Your task to perform on an android device: Do I have any events this weekend? Image 0: 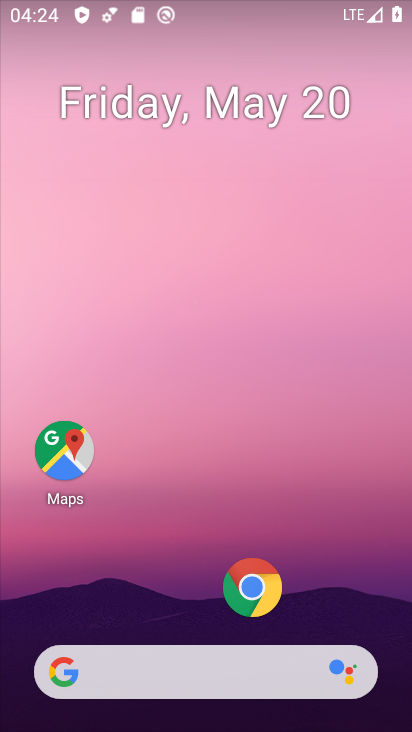
Step 0: click (216, 105)
Your task to perform on an android device: Do I have any events this weekend? Image 1: 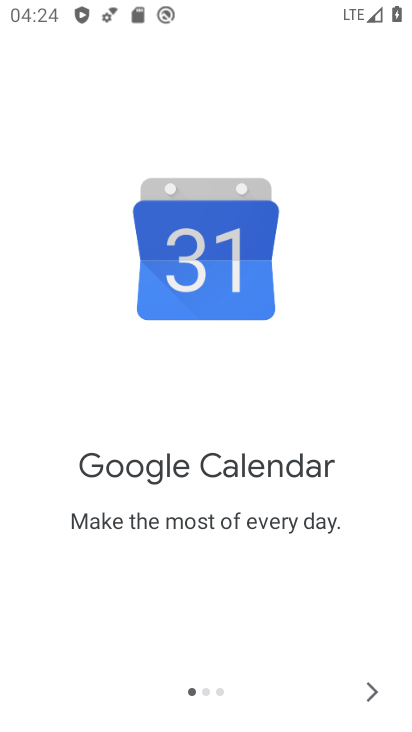
Step 1: click (382, 690)
Your task to perform on an android device: Do I have any events this weekend? Image 2: 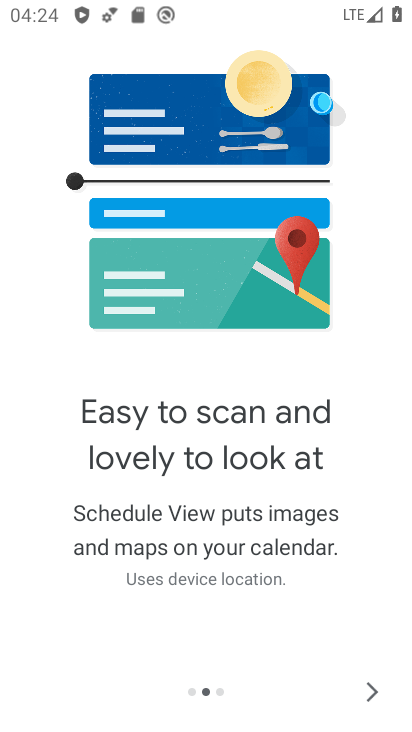
Step 2: click (382, 690)
Your task to perform on an android device: Do I have any events this weekend? Image 3: 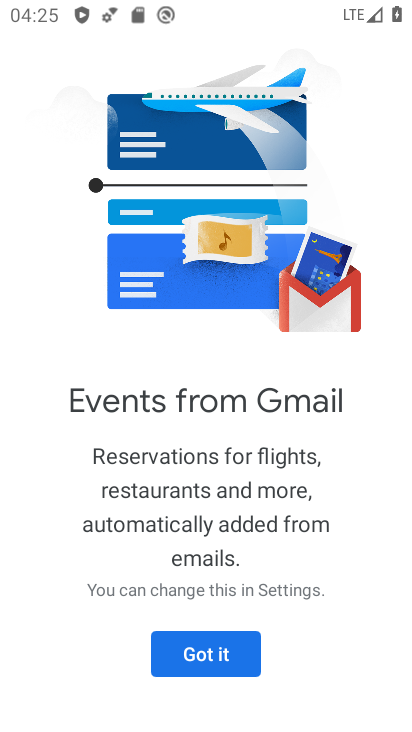
Step 3: click (215, 654)
Your task to perform on an android device: Do I have any events this weekend? Image 4: 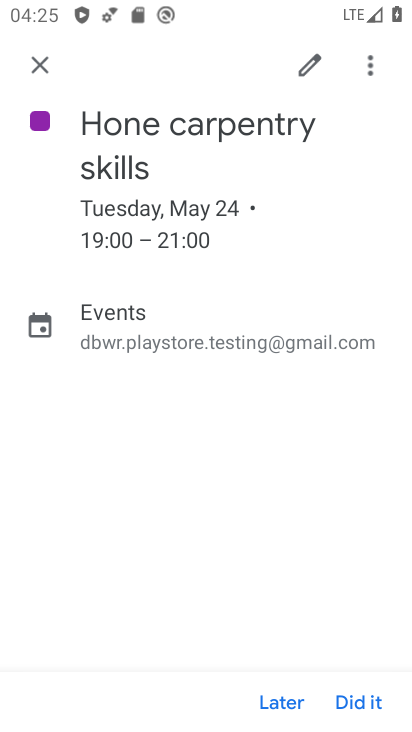
Step 4: click (43, 56)
Your task to perform on an android device: Do I have any events this weekend? Image 5: 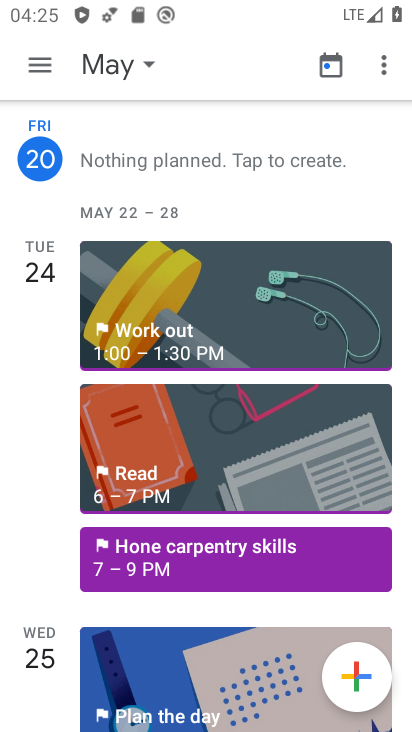
Step 5: click (126, 60)
Your task to perform on an android device: Do I have any events this weekend? Image 6: 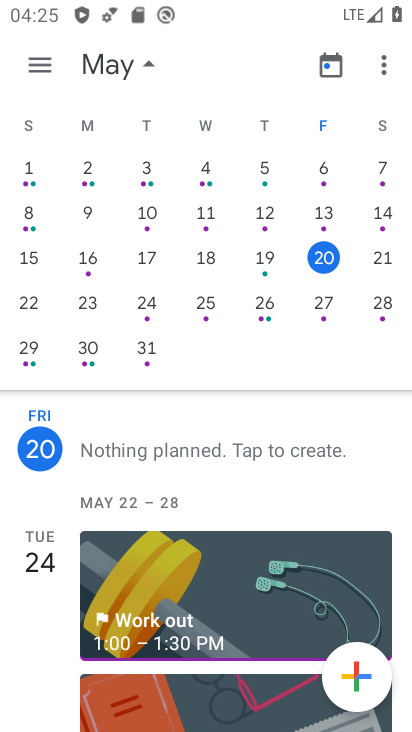
Step 6: click (377, 265)
Your task to perform on an android device: Do I have any events this weekend? Image 7: 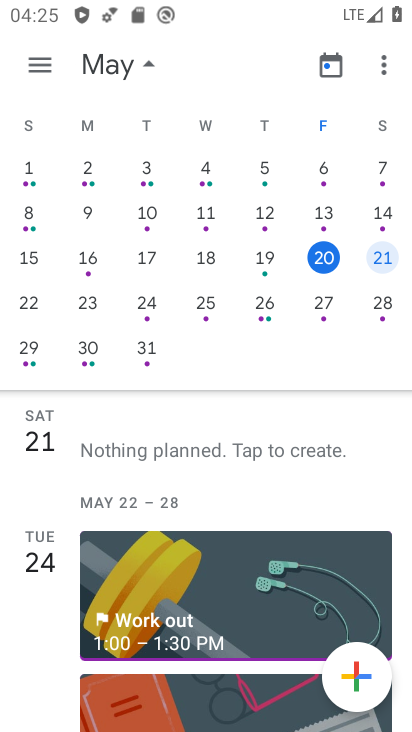
Step 7: task complete